Your task to perform on an android device: see sites visited before in the chrome app Image 0: 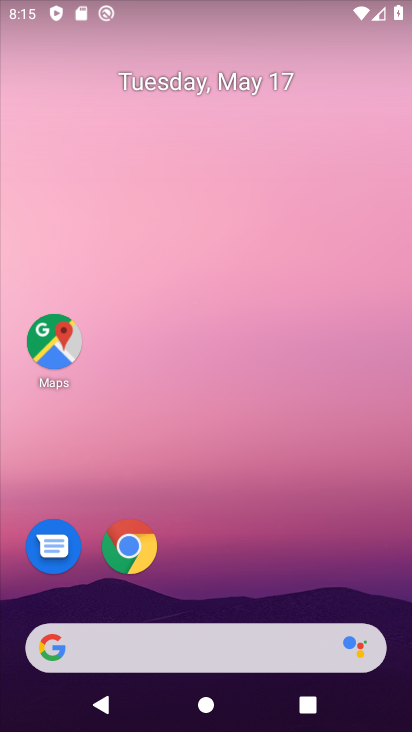
Step 0: drag from (246, 706) to (43, 205)
Your task to perform on an android device: see sites visited before in the chrome app Image 1: 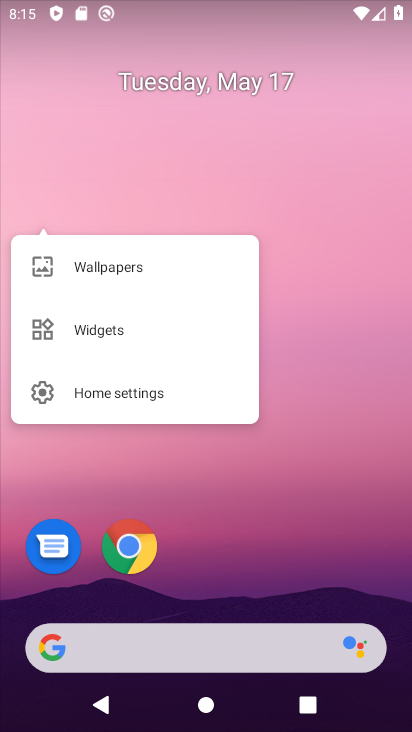
Step 1: click (169, 457)
Your task to perform on an android device: see sites visited before in the chrome app Image 2: 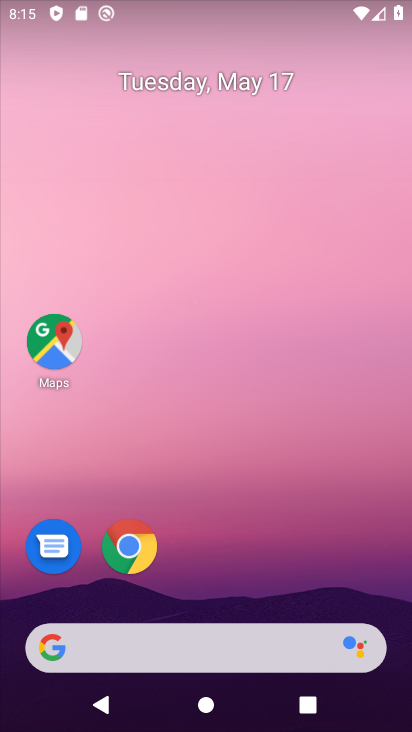
Step 2: drag from (226, 717) to (125, 99)
Your task to perform on an android device: see sites visited before in the chrome app Image 3: 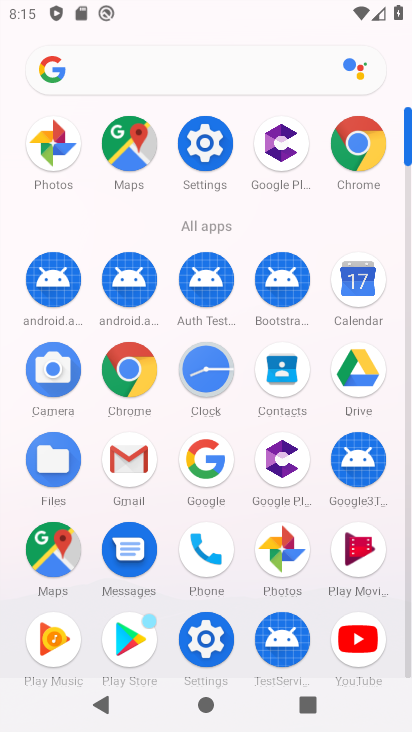
Step 3: click (360, 139)
Your task to perform on an android device: see sites visited before in the chrome app Image 4: 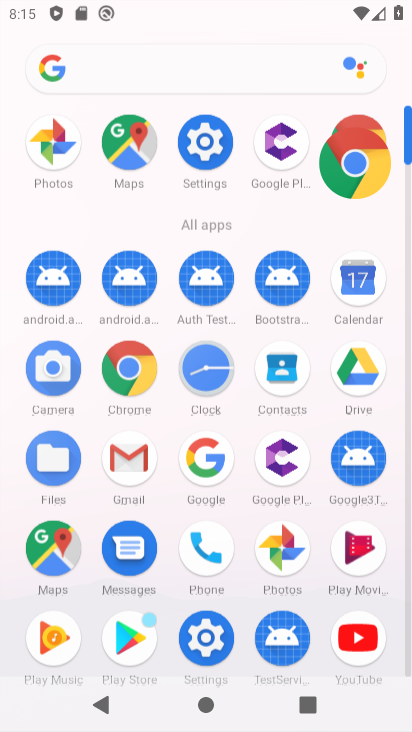
Step 4: click (360, 138)
Your task to perform on an android device: see sites visited before in the chrome app Image 5: 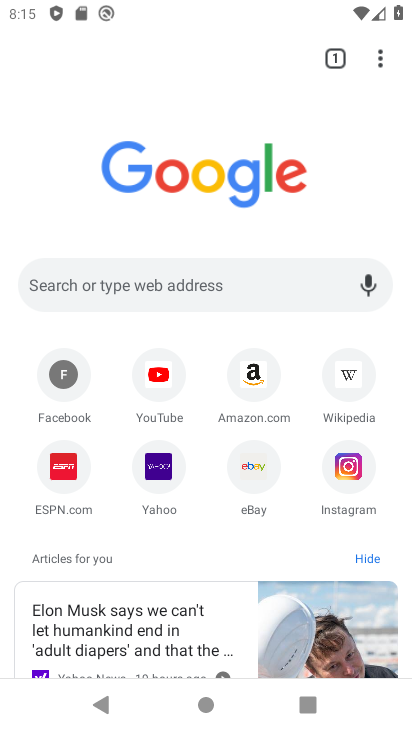
Step 5: drag from (373, 57) to (167, 492)
Your task to perform on an android device: see sites visited before in the chrome app Image 6: 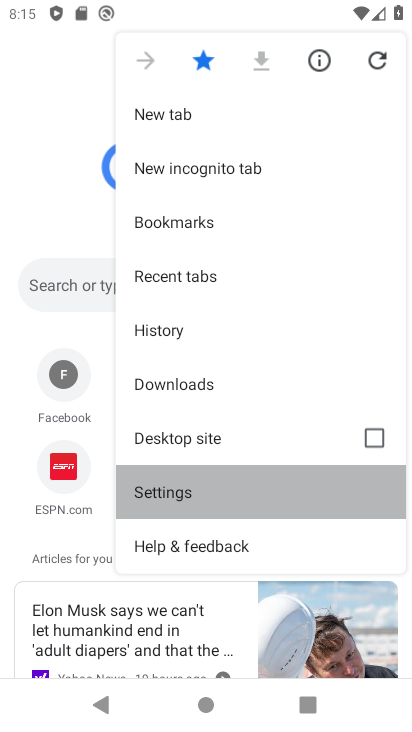
Step 6: click (167, 493)
Your task to perform on an android device: see sites visited before in the chrome app Image 7: 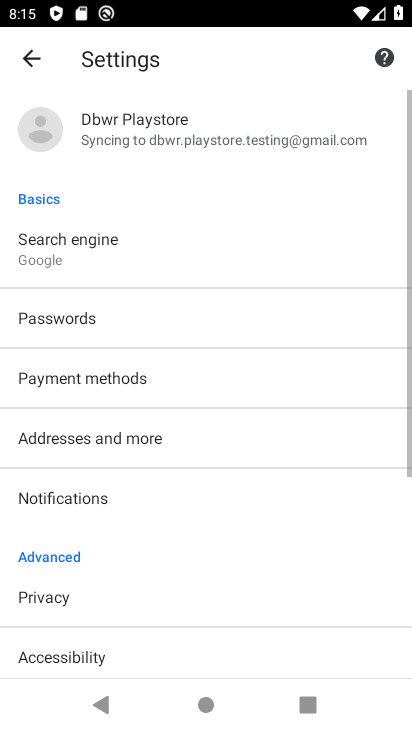
Step 7: click (45, 56)
Your task to perform on an android device: see sites visited before in the chrome app Image 8: 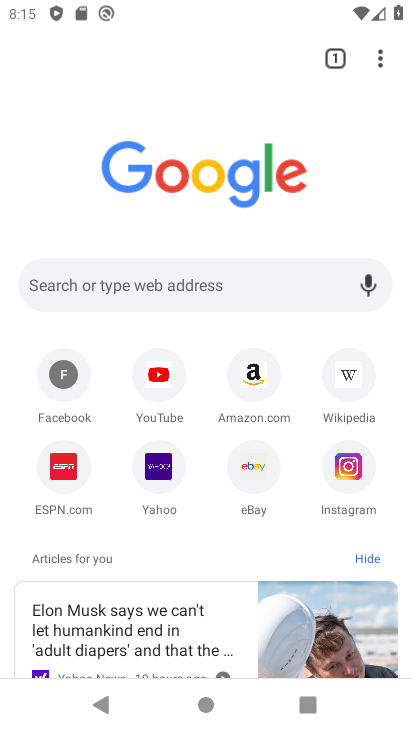
Step 8: drag from (377, 62) to (171, 279)
Your task to perform on an android device: see sites visited before in the chrome app Image 9: 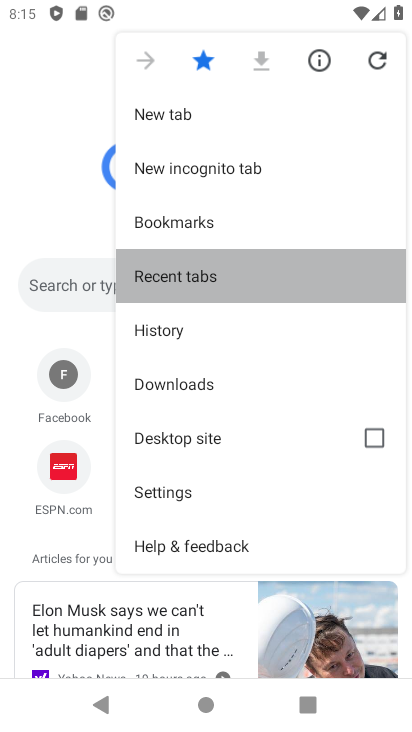
Step 9: click (171, 279)
Your task to perform on an android device: see sites visited before in the chrome app Image 10: 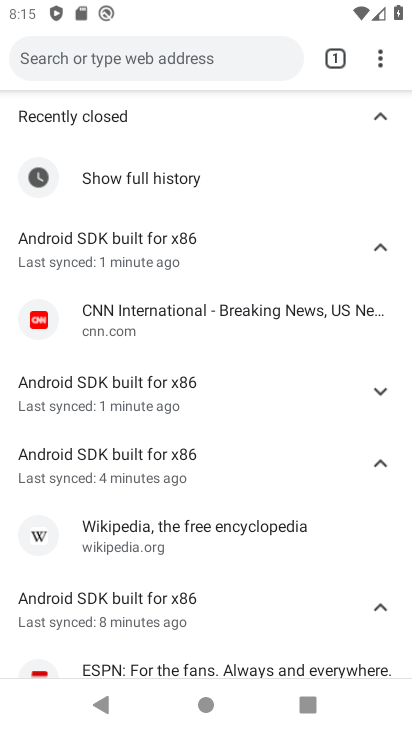
Step 10: task complete